Your task to perform on an android device: Open Maps and search for coffee Image 0: 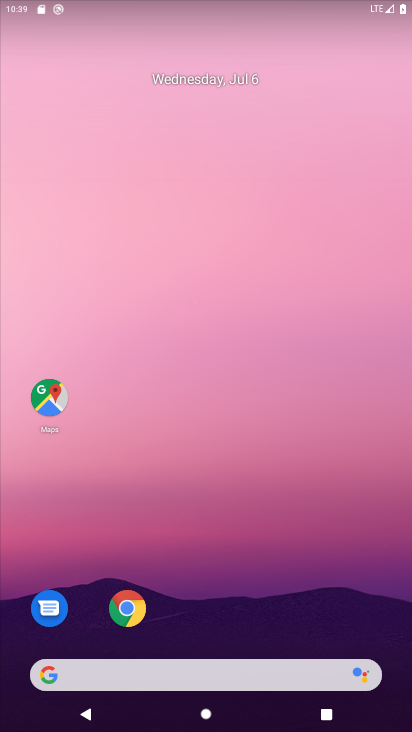
Step 0: click (63, 397)
Your task to perform on an android device: Open Maps and search for coffee Image 1: 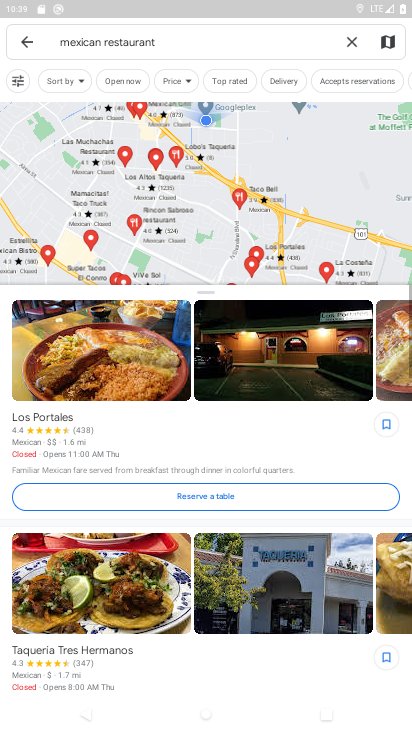
Step 1: click (346, 42)
Your task to perform on an android device: Open Maps and search for coffee Image 2: 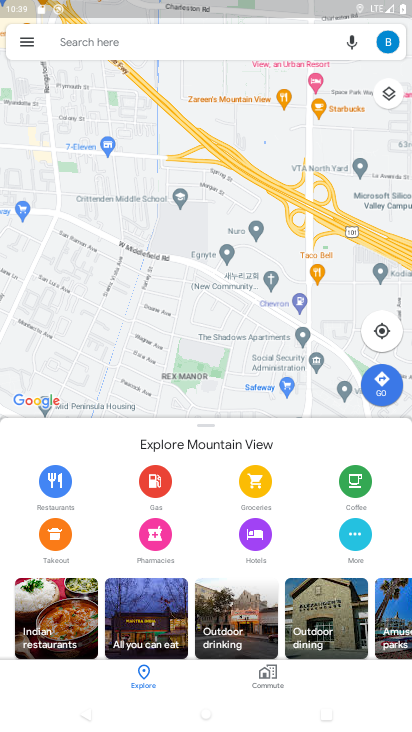
Step 2: click (186, 43)
Your task to perform on an android device: Open Maps and search for coffee Image 3: 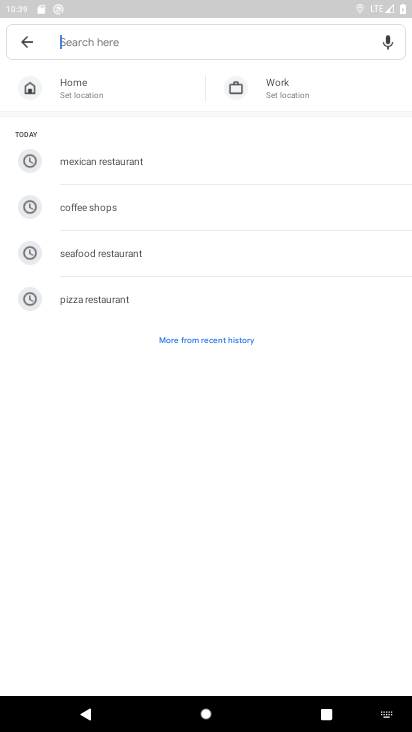
Step 3: type "coffee"
Your task to perform on an android device: Open Maps and search for coffee Image 4: 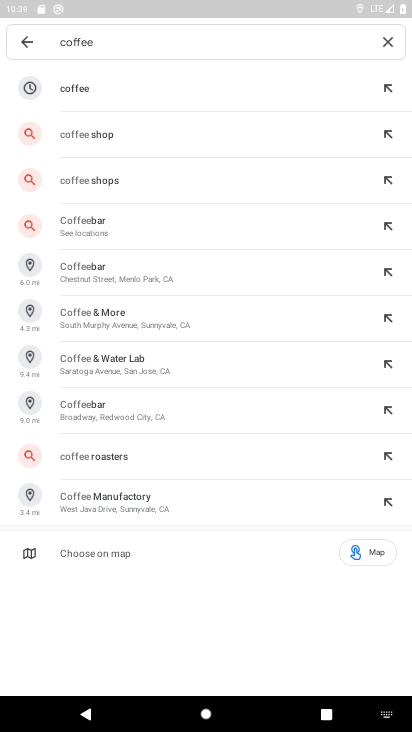
Step 4: click (119, 97)
Your task to perform on an android device: Open Maps and search for coffee Image 5: 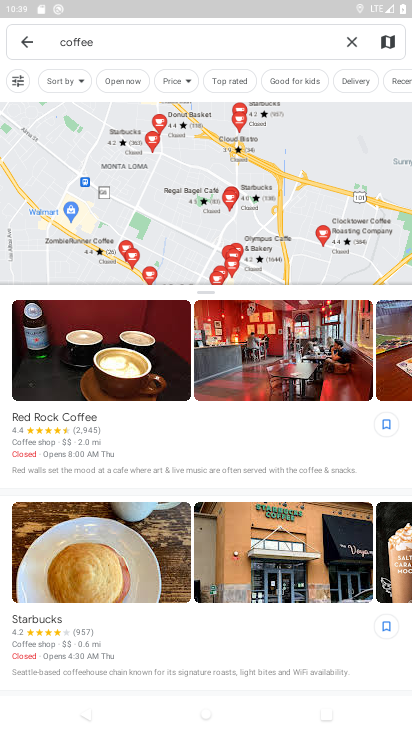
Step 5: task complete